Your task to perform on an android device: Go to eBay Image 0: 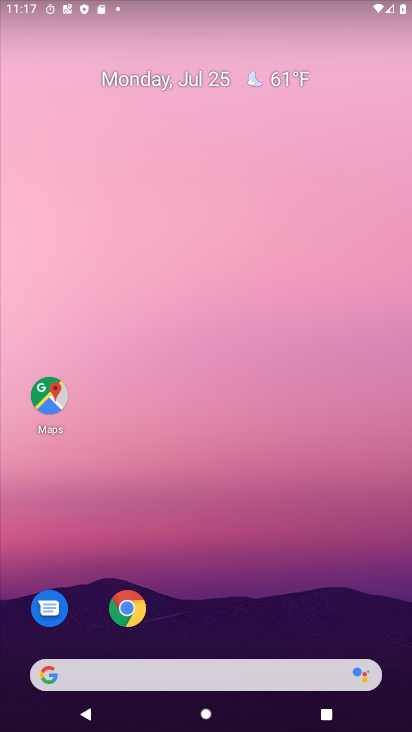
Step 0: drag from (328, 648) to (181, 26)
Your task to perform on an android device: Go to eBay Image 1: 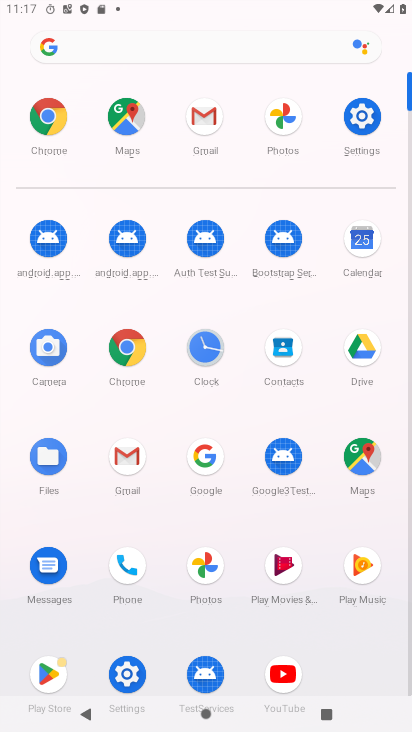
Step 1: click (45, 111)
Your task to perform on an android device: Go to eBay Image 2: 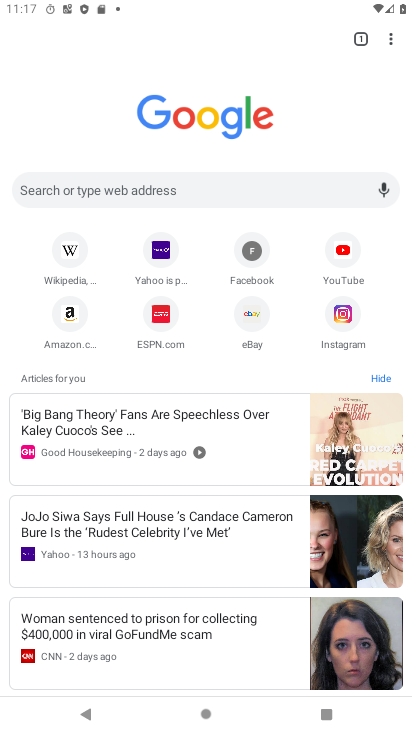
Step 2: click (247, 321)
Your task to perform on an android device: Go to eBay Image 3: 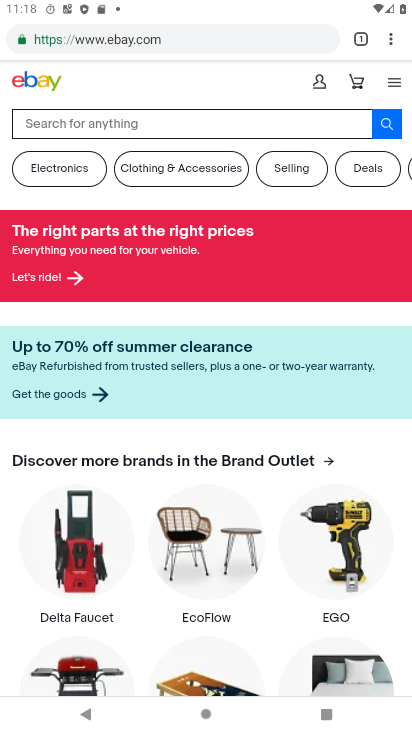
Step 3: task complete